Your task to perform on an android device: Open Android settings Image 0: 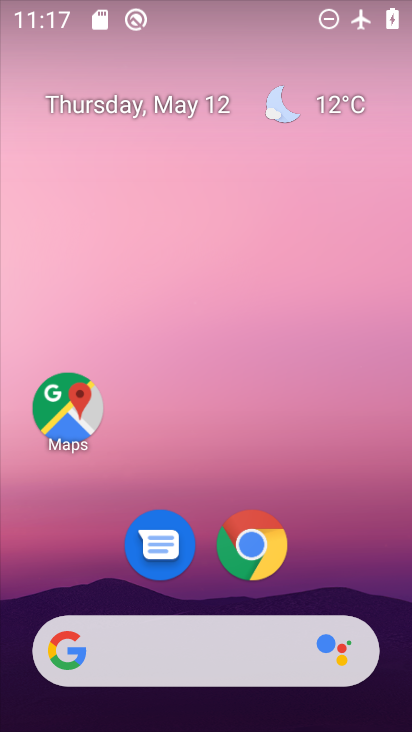
Step 0: press home button
Your task to perform on an android device: Open Android settings Image 1: 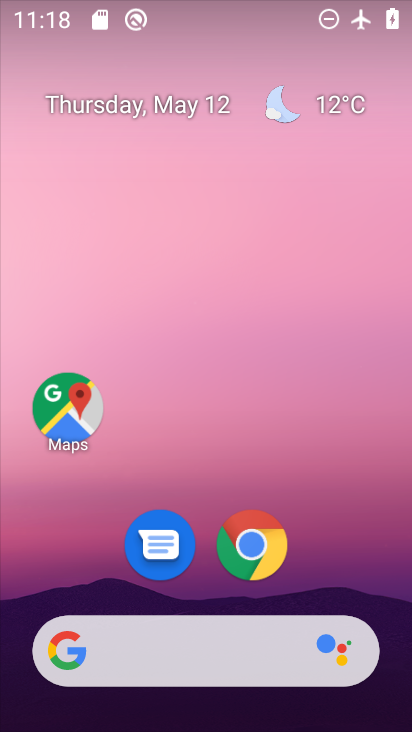
Step 1: drag from (207, 588) to (215, 42)
Your task to perform on an android device: Open Android settings Image 2: 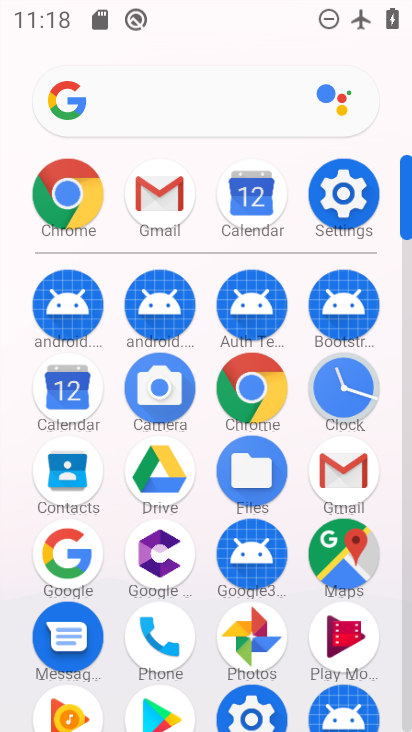
Step 2: click (337, 190)
Your task to perform on an android device: Open Android settings Image 3: 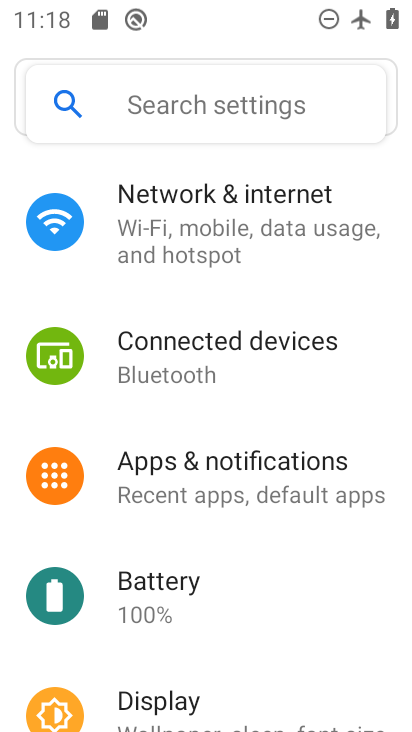
Step 3: drag from (210, 665) to (226, 162)
Your task to perform on an android device: Open Android settings Image 4: 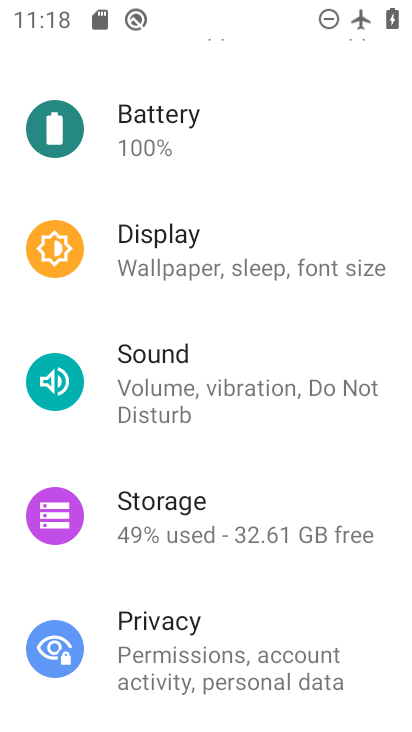
Step 4: drag from (220, 659) to (233, 105)
Your task to perform on an android device: Open Android settings Image 5: 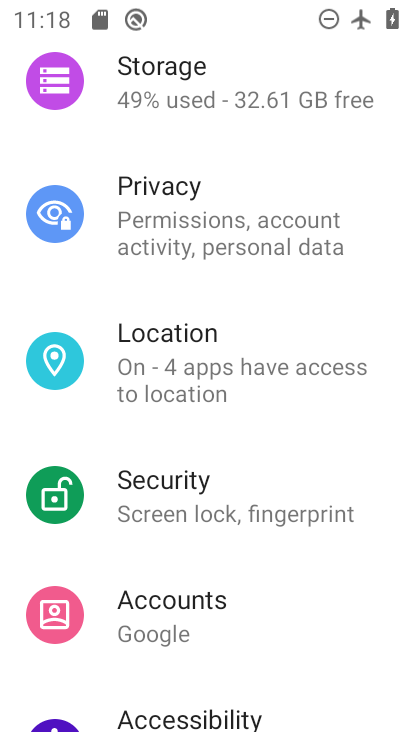
Step 5: drag from (258, 668) to (277, 48)
Your task to perform on an android device: Open Android settings Image 6: 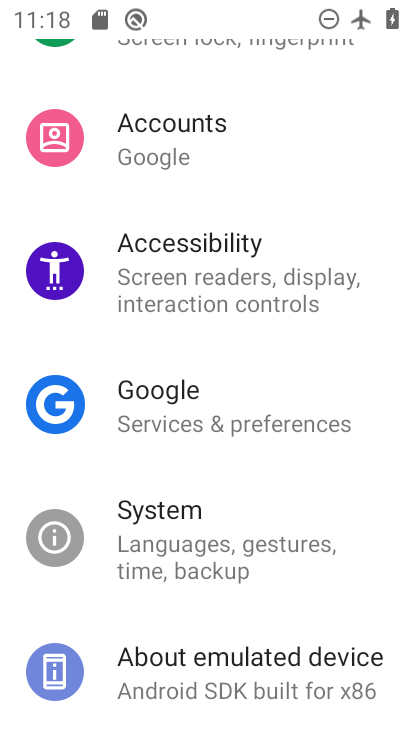
Step 6: click (225, 662)
Your task to perform on an android device: Open Android settings Image 7: 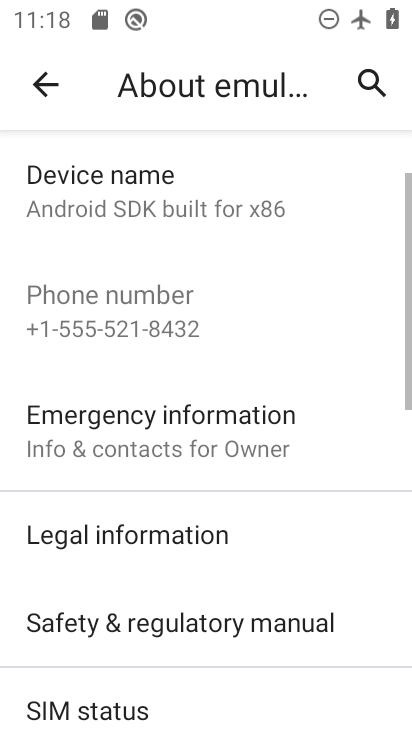
Step 7: drag from (235, 667) to (289, 131)
Your task to perform on an android device: Open Android settings Image 8: 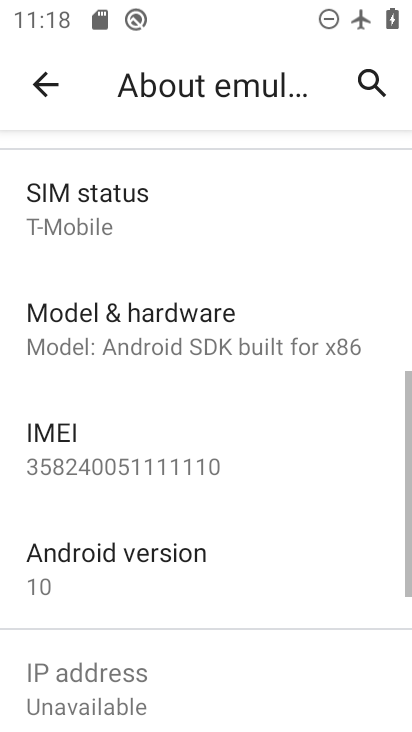
Step 8: click (94, 574)
Your task to perform on an android device: Open Android settings Image 9: 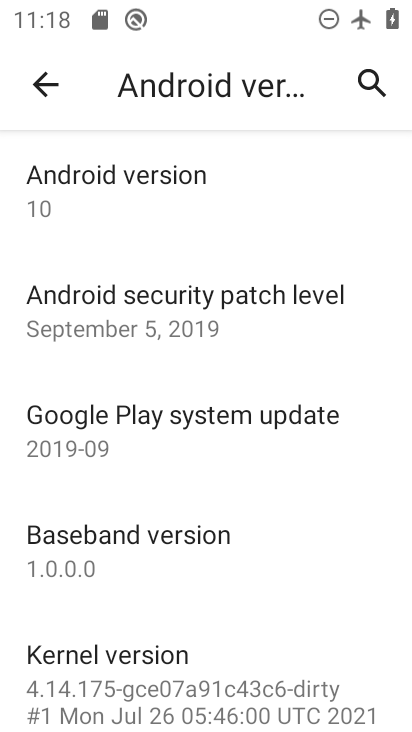
Step 9: task complete